Your task to perform on an android device: open a new tab in the chrome app Image 0: 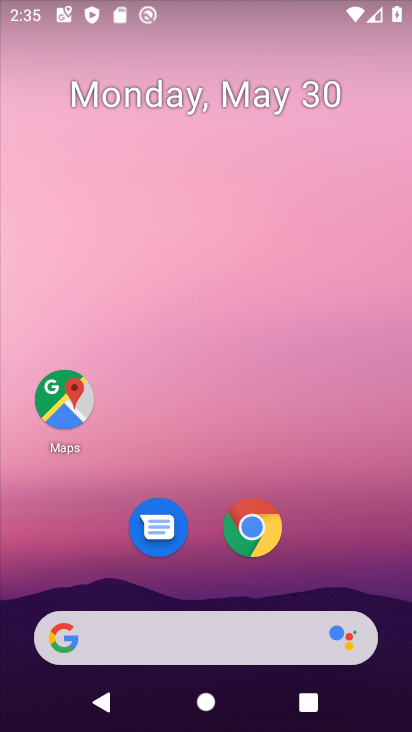
Step 0: drag from (305, 559) to (298, 108)
Your task to perform on an android device: open a new tab in the chrome app Image 1: 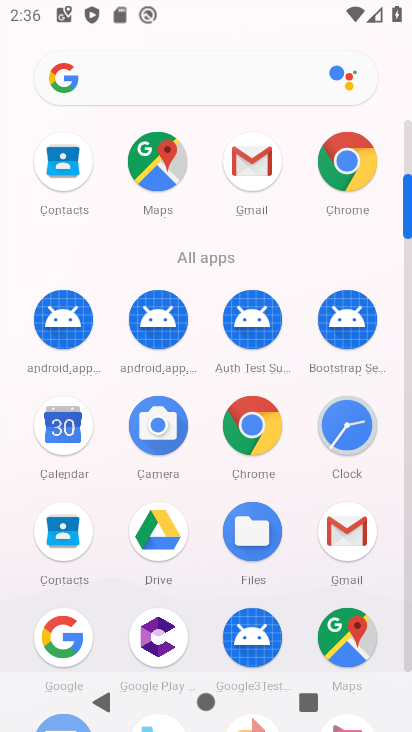
Step 1: click (247, 416)
Your task to perform on an android device: open a new tab in the chrome app Image 2: 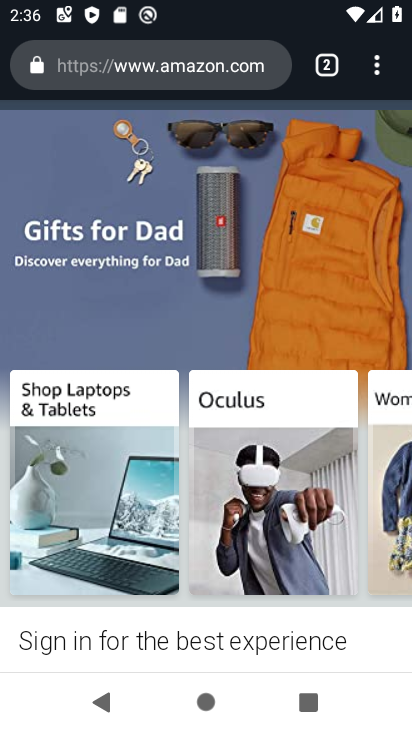
Step 2: task complete